Your task to perform on an android device: Is it going to rain today? Image 0: 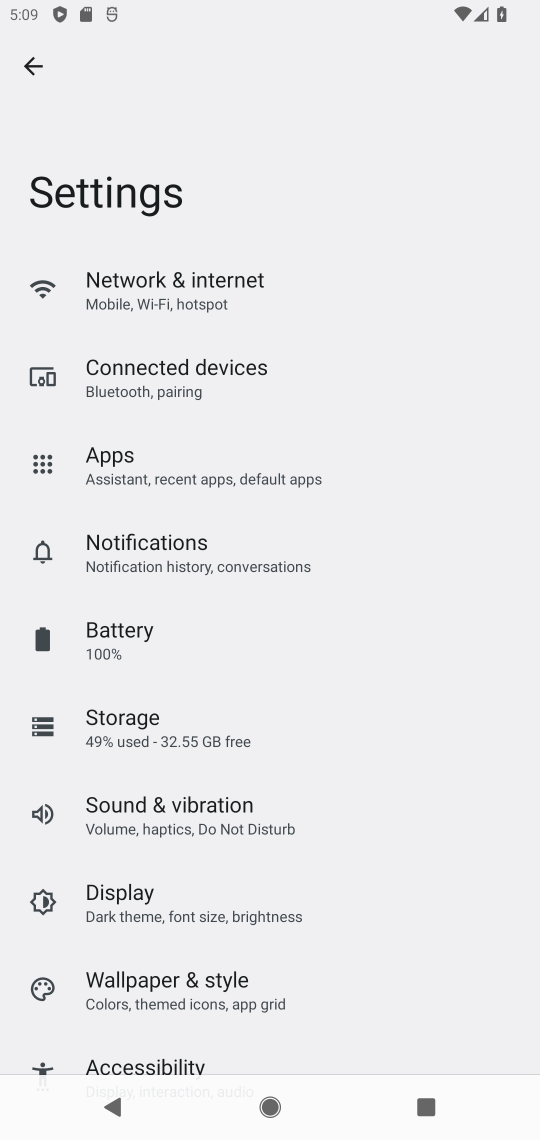
Step 0: press home button
Your task to perform on an android device: Is it going to rain today? Image 1: 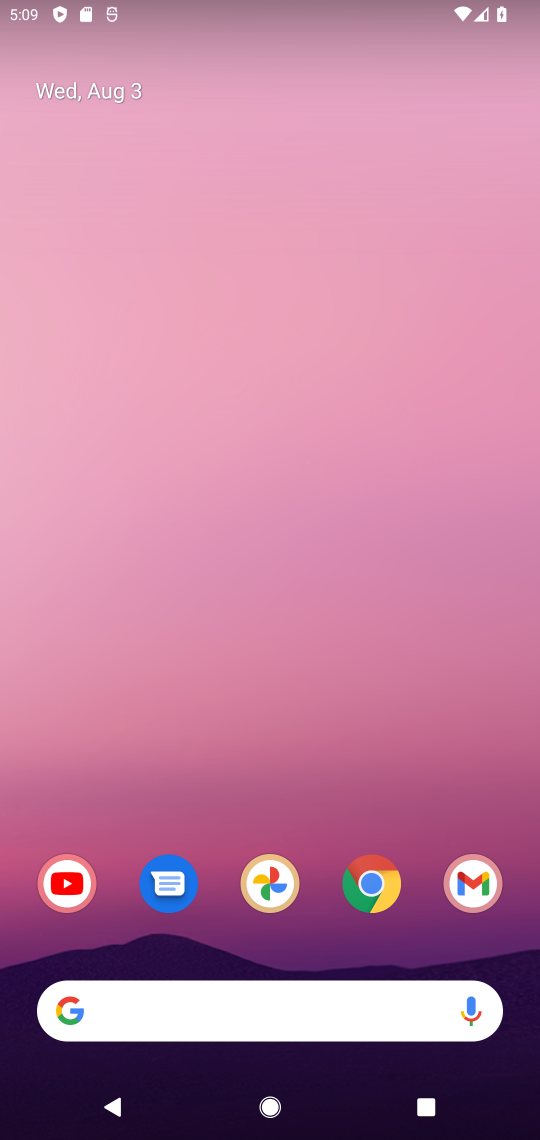
Step 1: drag from (183, 977) to (189, 314)
Your task to perform on an android device: Is it going to rain today? Image 2: 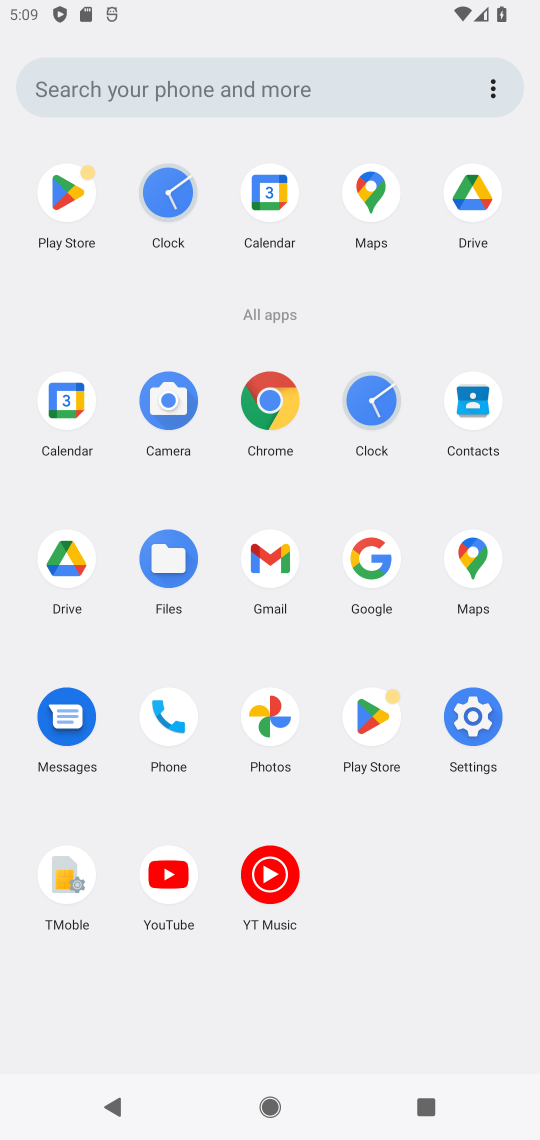
Step 2: click (385, 553)
Your task to perform on an android device: Is it going to rain today? Image 3: 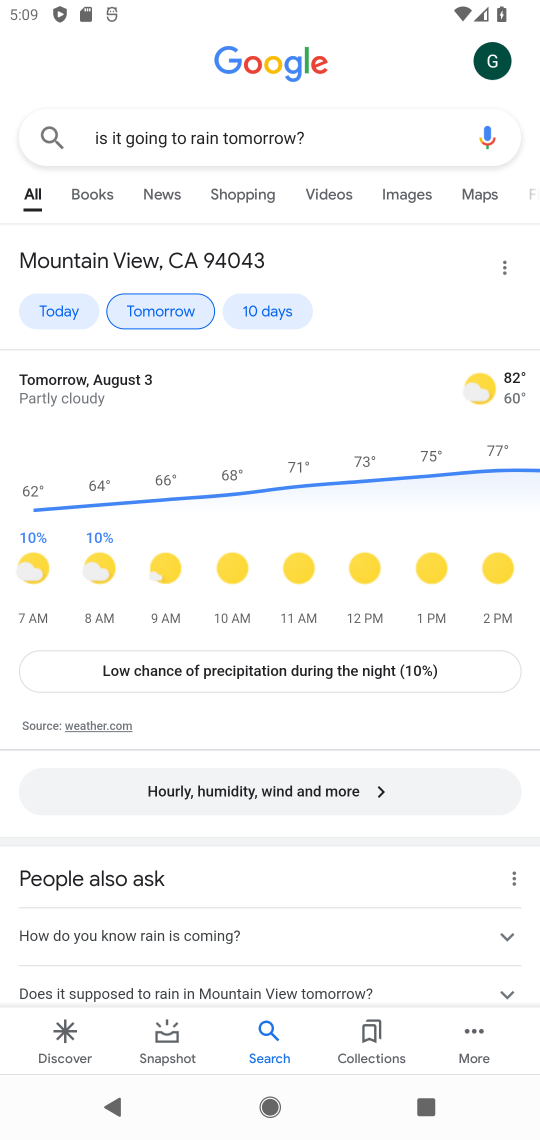
Step 3: click (355, 141)
Your task to perform on an android device: Is it going to rain today? Image 4: 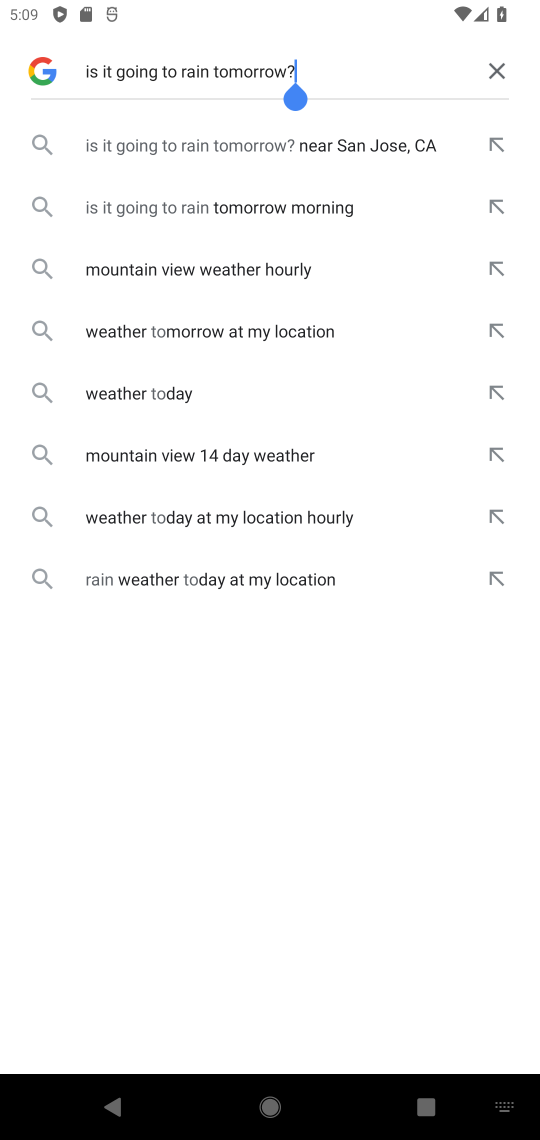
Step 4: click (492, 72)
Your task to perform on an android device: Is it going to rain today? Image 5: 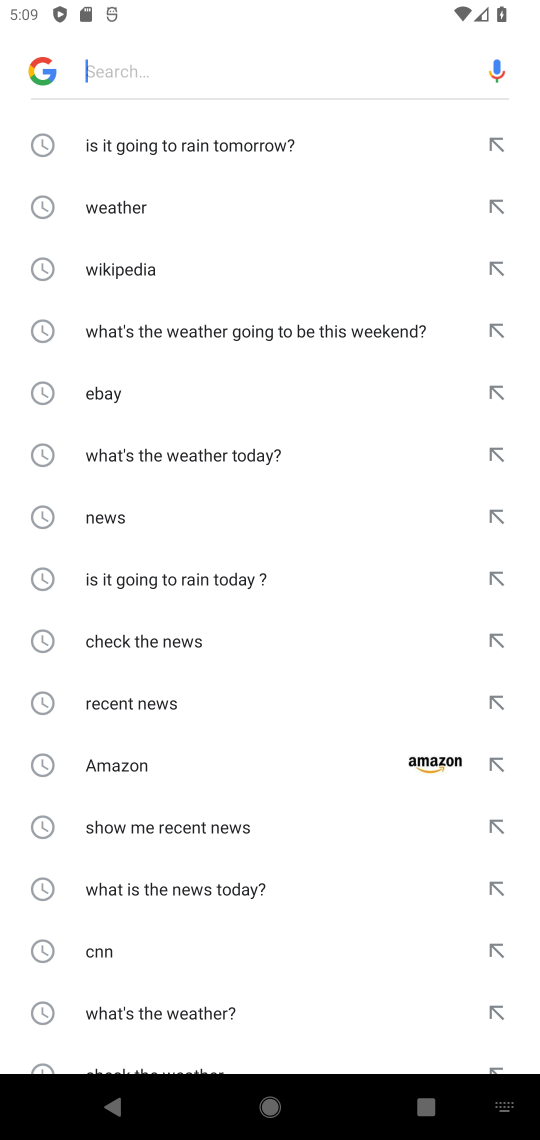
Step 5: click (226, 574)
Your task to perform on an android device: Is it going to rain today? Image 6: 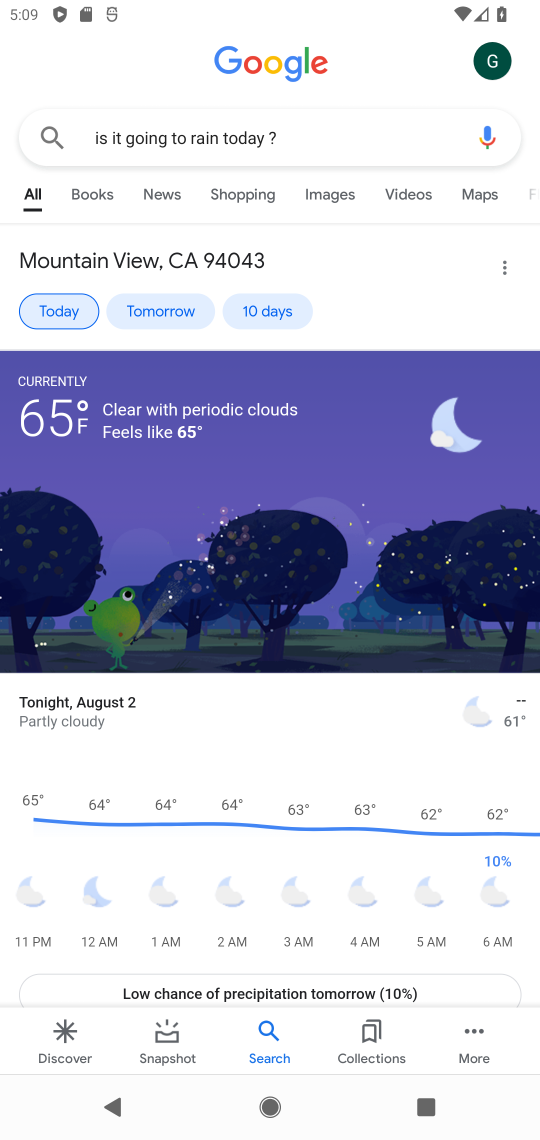
Step 6: task complete